Your task to perform on an android device: allow notifications from all sites in the chrome app Image 0: 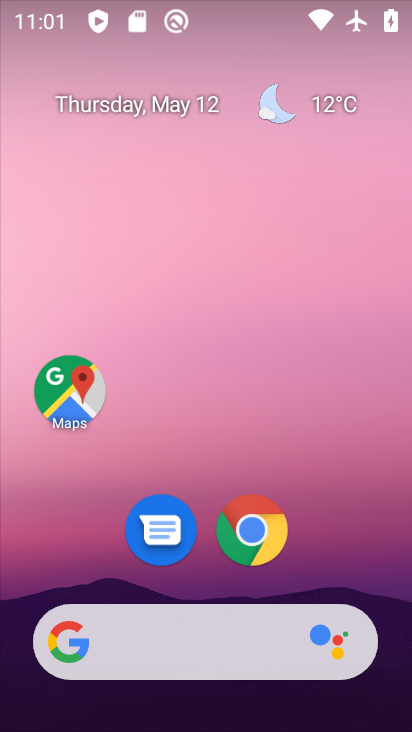
Step 0: click (288, 490)
Your task to perform on an android device: allow notifications from all sites in the chrome app Image 1: 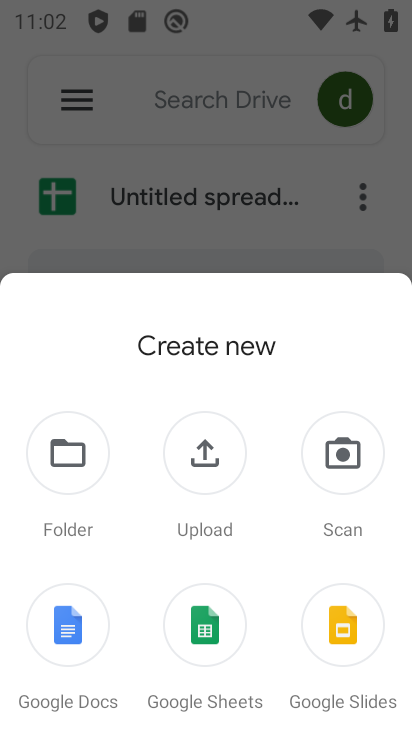
Step 1: press home button
Your task to perform on an android device: allow notifications from all sites in the chrome app Image 2: 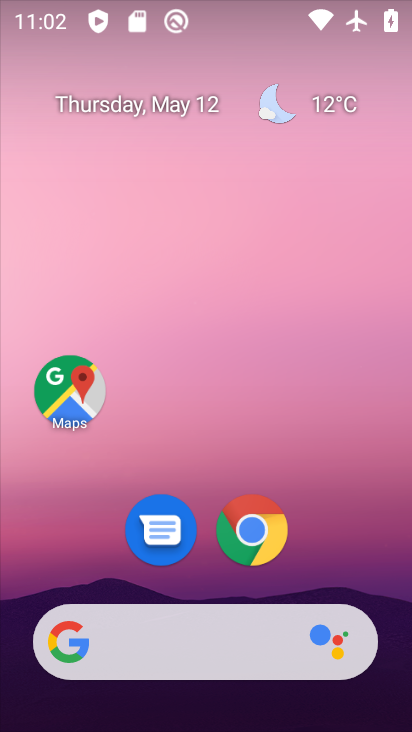
Step 2: click (262, 541)
Your task to perform on an android device: allow notifications from all sites in the chrome app Image 3: 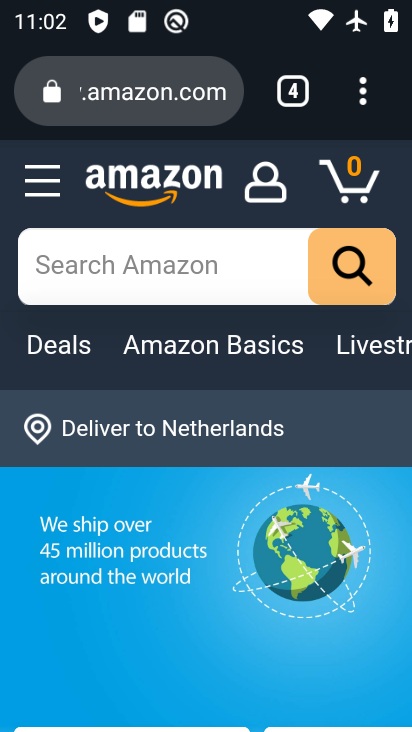
Step 3: drag from (362, 93) to (175, 589)
Your task to perform on an android device: allow notifications from all sites in the chrome app Image 4: 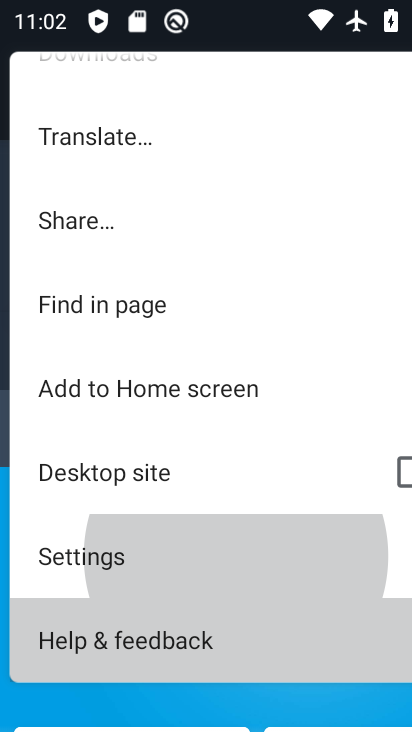
Step 4: click (180, 572)
Your task to perform on an android device: allow notifications from all sites in the chrome app Image 5: 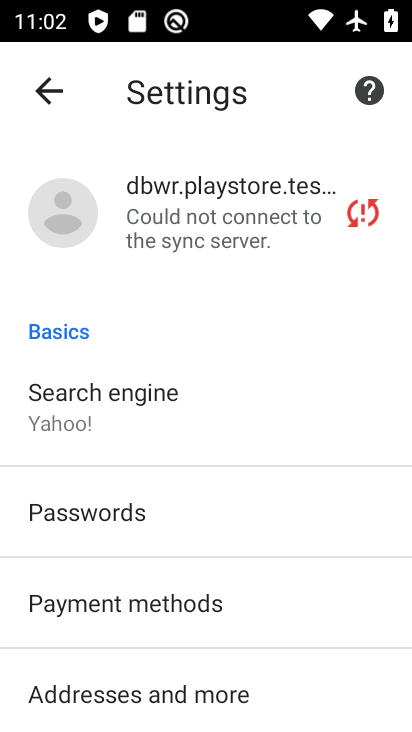
Step 5: drag from (157, 660) to (304, 266)
Your task to perform on an android device: allow notifications from all sites in the chrome app Image 6: 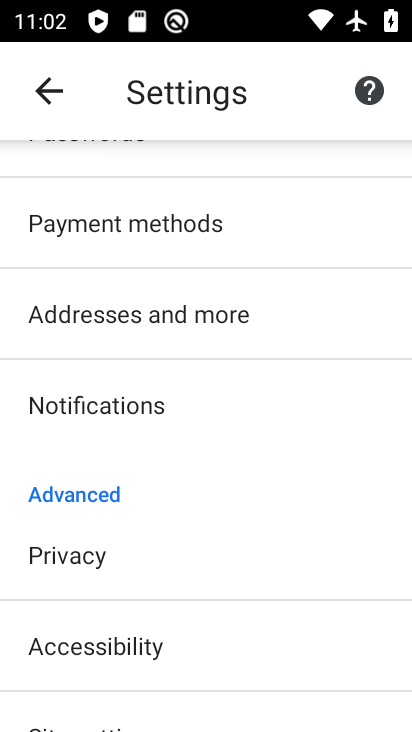
Step 6: drag from (171, 592) to (276, 313)
Your task to perform on an android device: allow notifications from all sites in the chrome app Image 7: 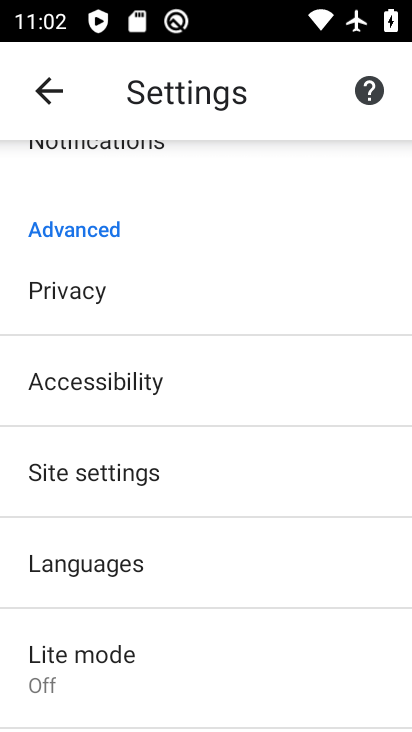
Step 7: click (132, 468)
Your task to perform on an android device: allow notifications from all sites in the chrome app Image 8: 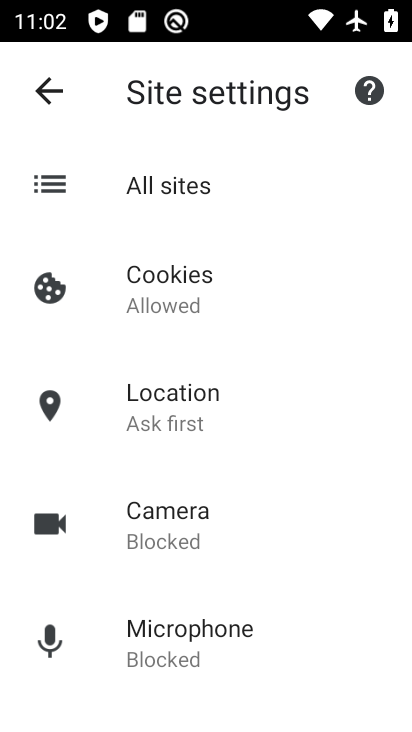
Step 8: drag from (223, 598) to (319, 399)
Your task to perform on an android device: allow notifications from all sites in the chrome app Image 9: 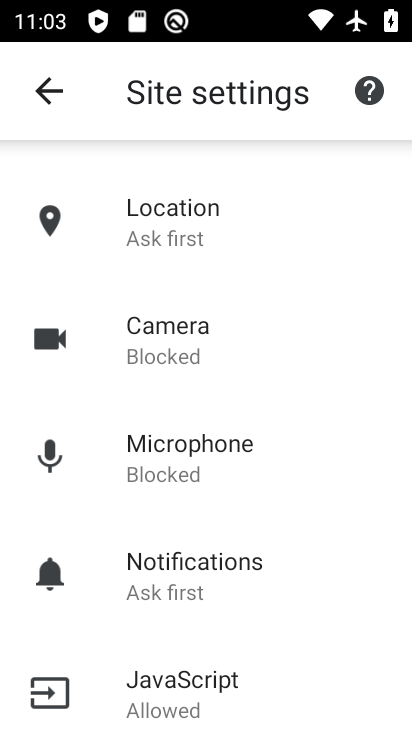
Step 9: click (190, 563)
Your task to perform on an android device: allow notifications from all sites in the chrome app Image 10: 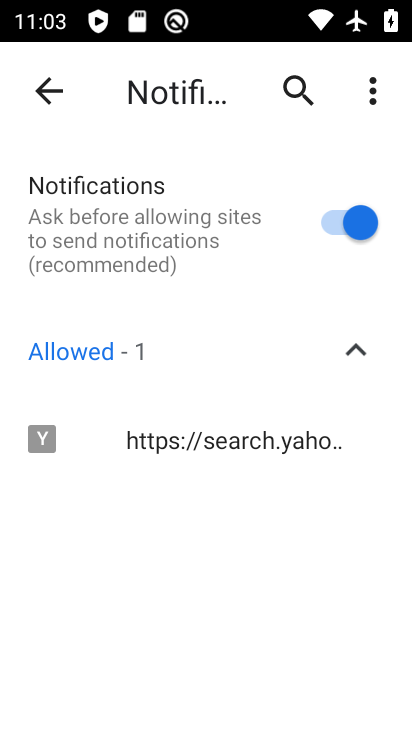
Step 10: task complete